Your task to perform on an android device: turn off smart reply in the gmail app Image 0: 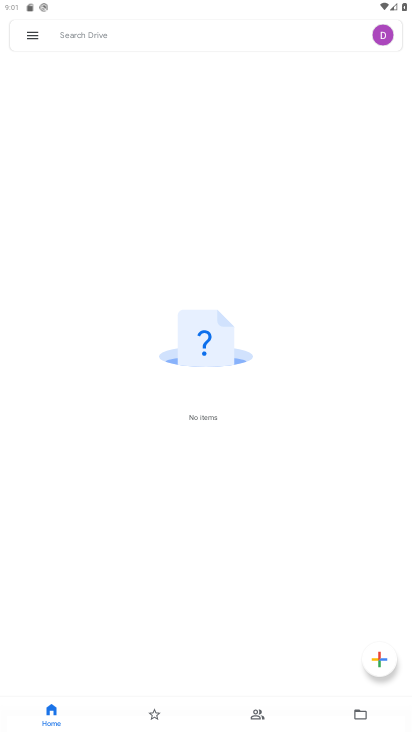
Step 0: press home button
Your task to perform on an android device: turn off smart reply in the gmail app Image 1: 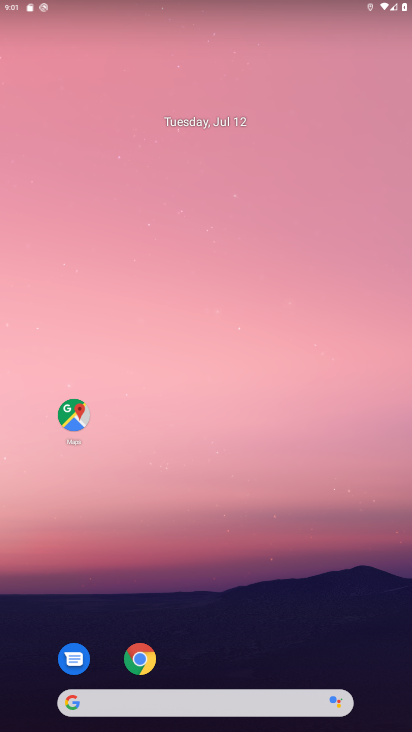
Step 1: drag from (210, 650) to (192, 293)
Your task to perform on an android device: turn off smart reply in the gmail app Image 2: 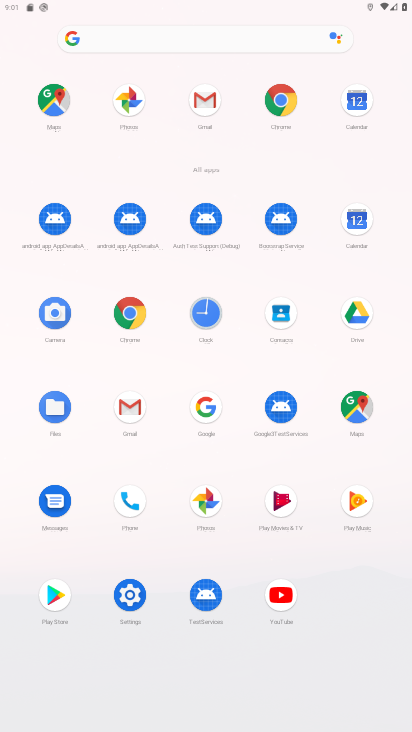
Step 2: click (203, 96)
Your task to perform on an android device: turn off smart reply in the gmail app Image 3: 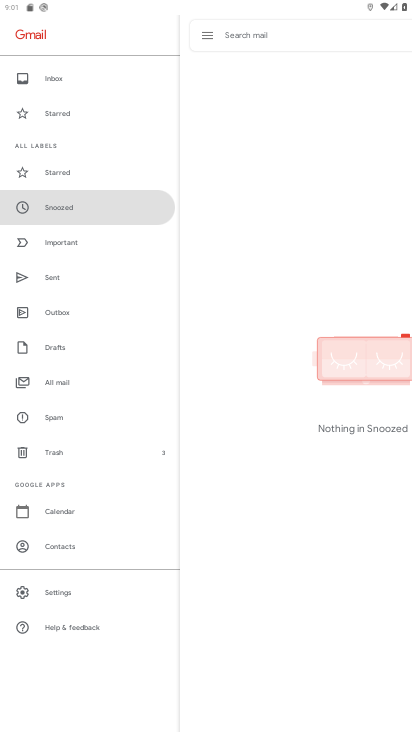
Step 3: click (70, 590)
Your task to perform on an android device: turn off smart reply in the gmail app Image 4: 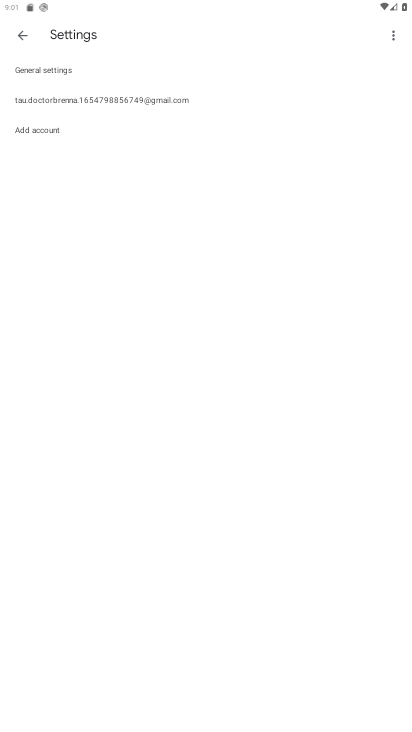
Step 4: click (75, 97)
Your task to perform on an android device: turn off smart reply in the gmail app Image 5: 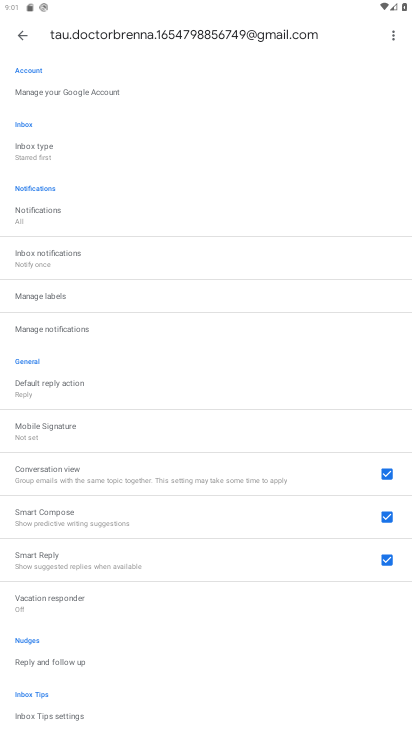
Step 5: click (362, 546)
Your task to perform on an android device: turn off smart reply in the gmail app Image 6: 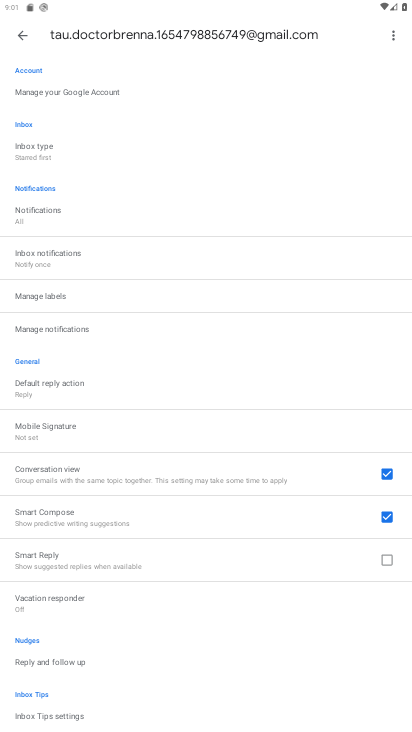
Step 6: task complete